Your task to perform on an android device: search for starred emails in the gmail app Image 0: 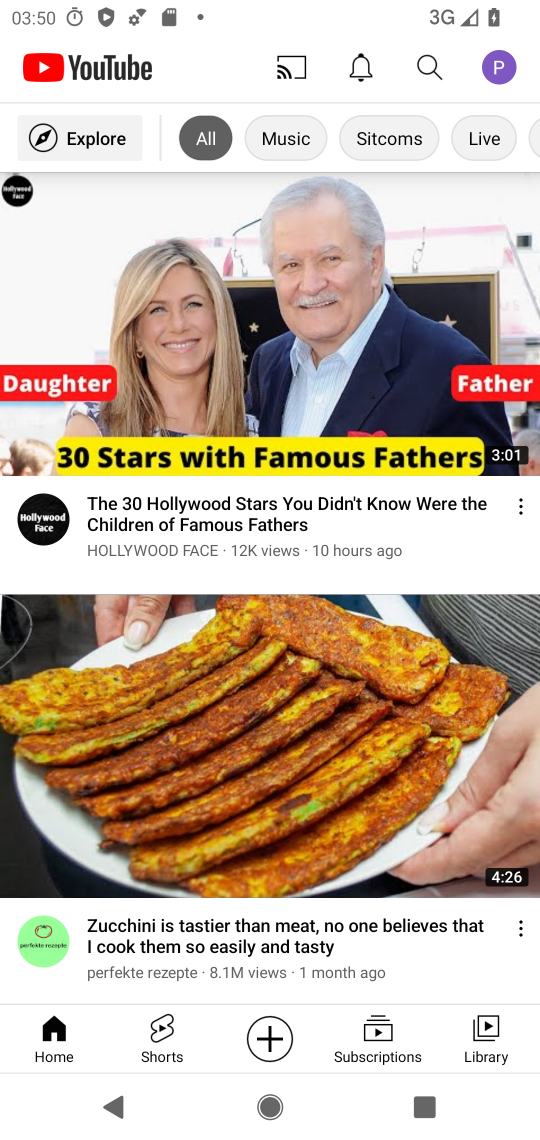
Step 0: press home button
Your task to perform on an android device: search for starred emails in the gmail app Image 1: 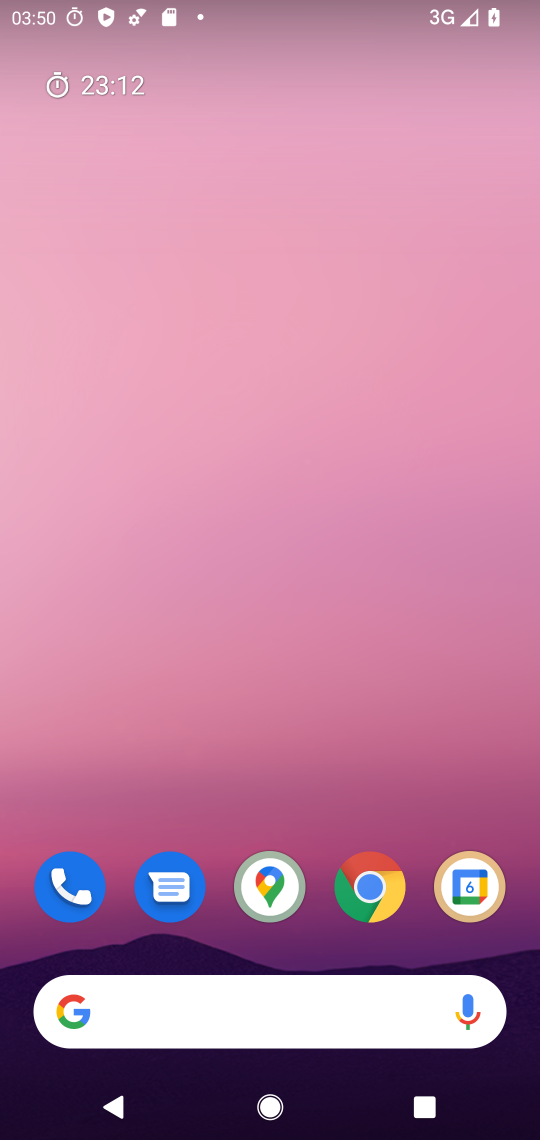
Step 1: drag from (399, 783) to (394, 364)
Your task to perform on an android device: search for starred emails in the gmail app Image 2: 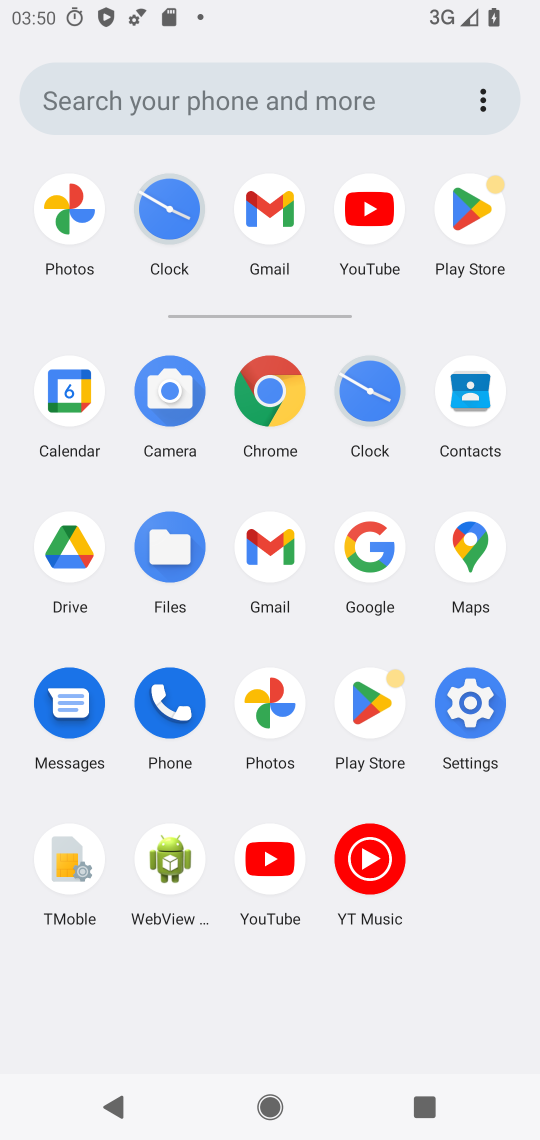
Step 2: click (255, 550)
Your task to perform on an android device: search for starred emails in the gmail app Image 3: 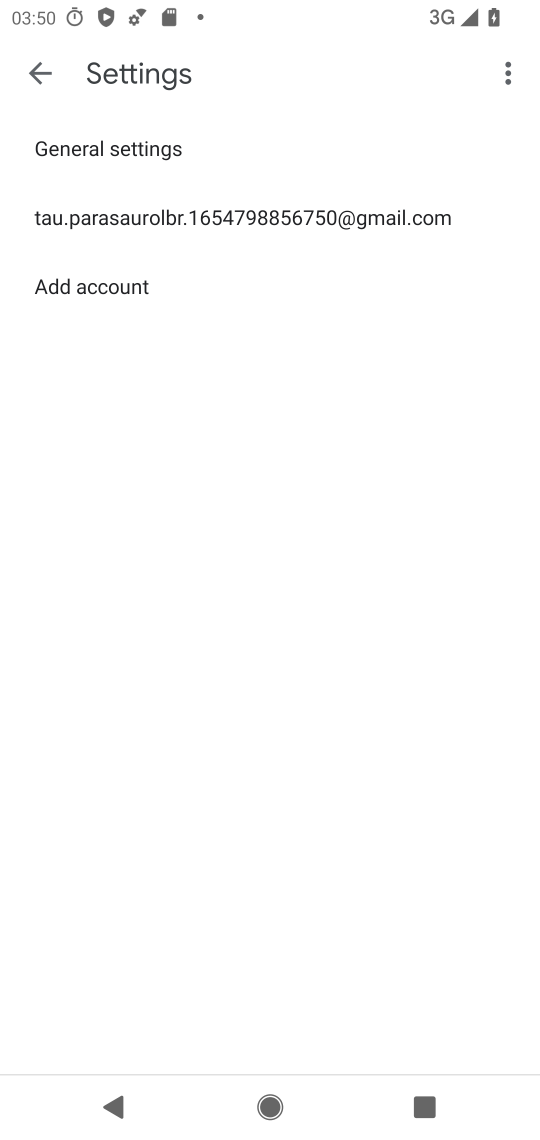
Step 3: press back button
Your task to perform on an android device: search for starred emails in the gmail app Image 4: 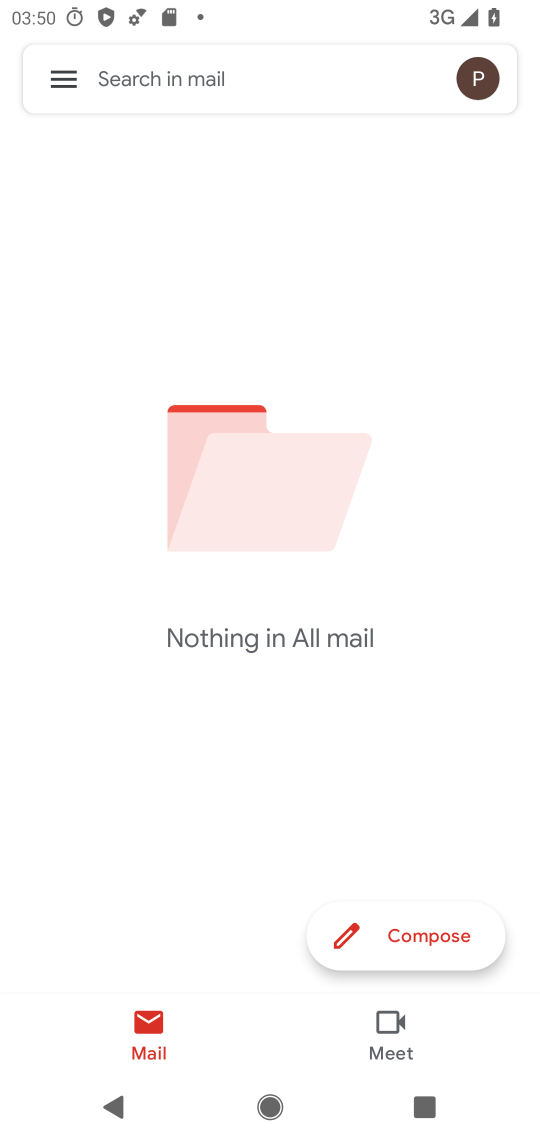
Step 4: click (62, 79)
Your task to perform on an android device: search for starred emails in the gmail app Image 5: 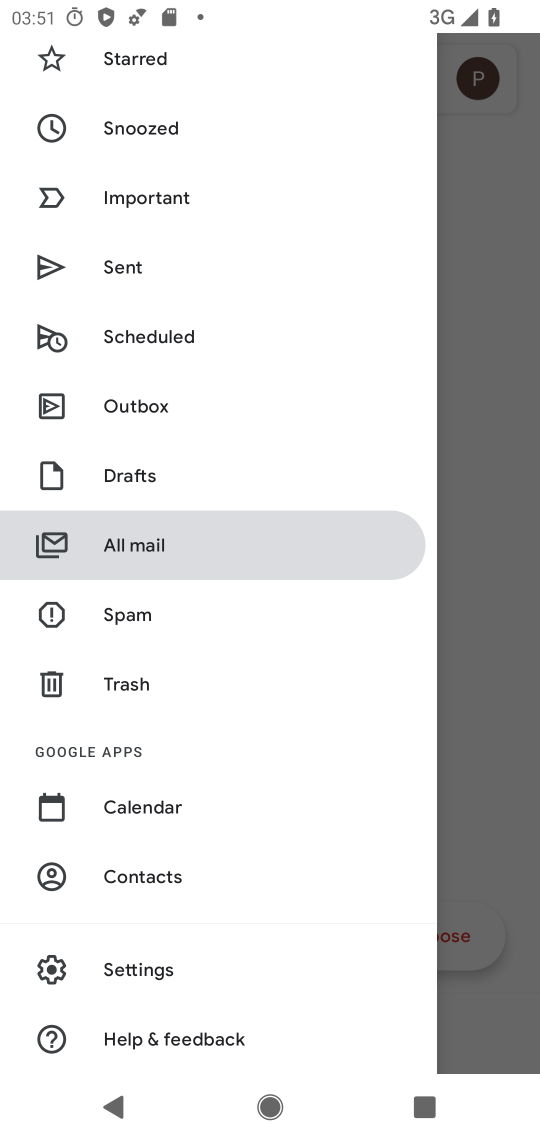
Step 5: drag from (306, 161) to (330, 313)
Your task to perform on an android device: search for starred emails in the gmail app Image 6: 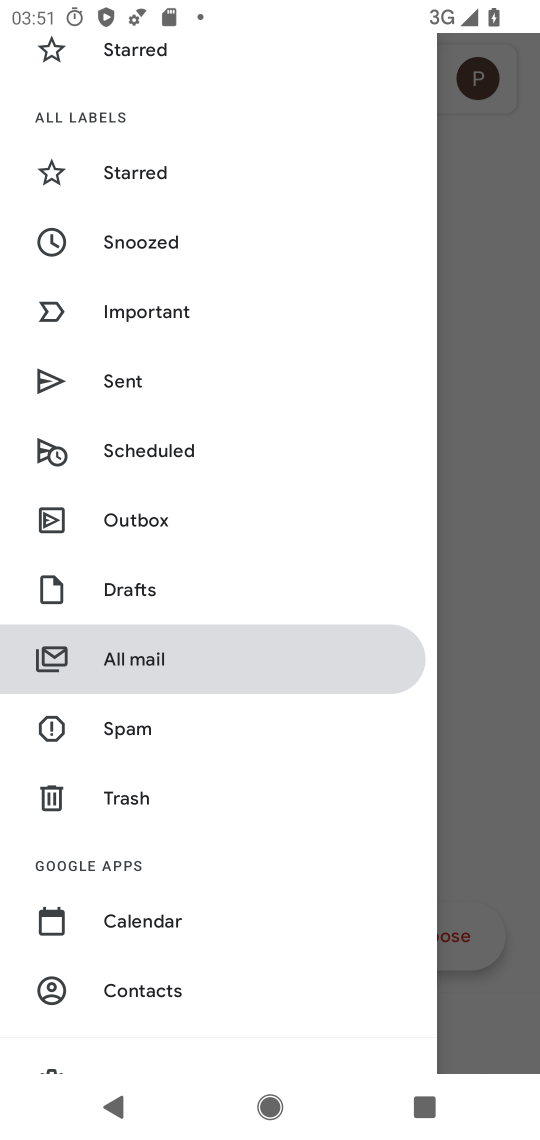
Step 6: drag from (338, 149) to (324, 390)
Your task to perform on an android device: search for starred emails in the gmail app Image 7: 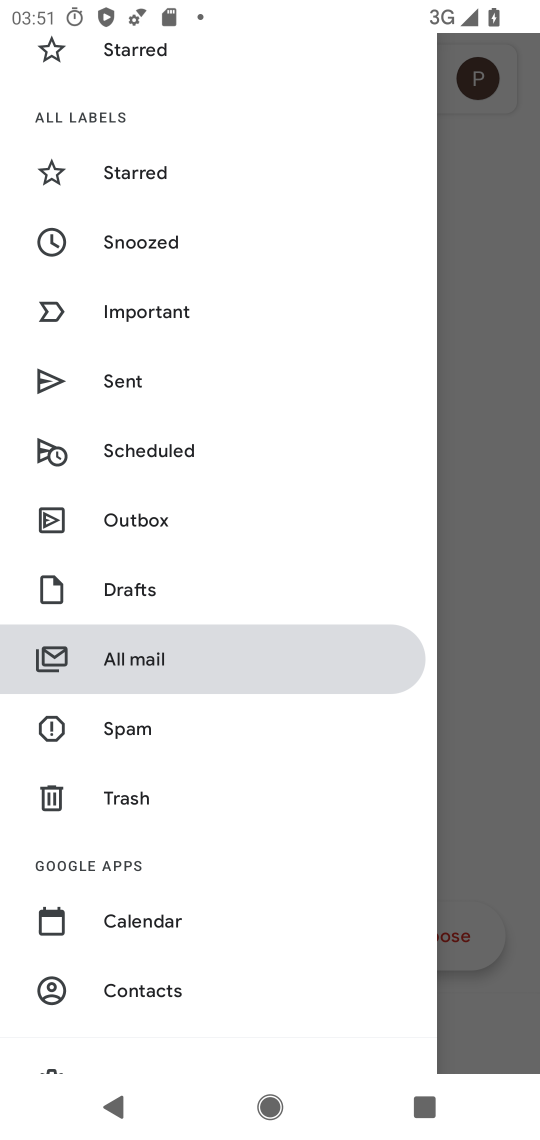
Step 7: click (198, 170)
Your task to perform on an android device: search for starred emails in the gmail app Image 8: 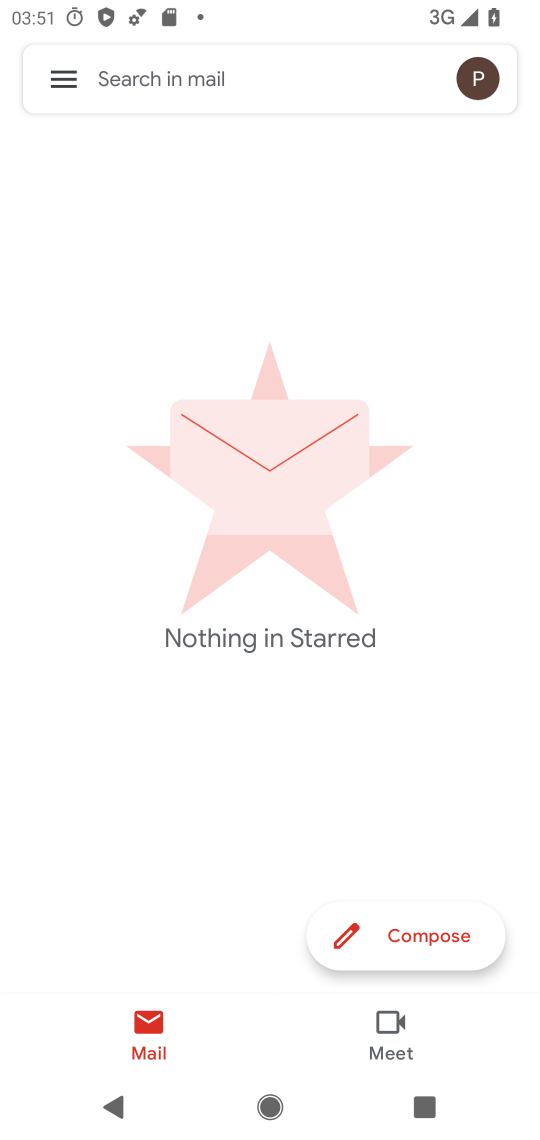
Step 8: task complete